Your task to perform on an android device: set the stopwatch Image 0: 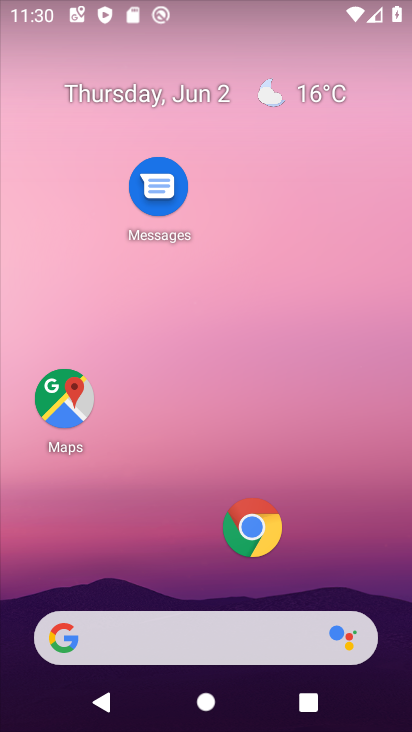
Step 0: press home button
Your task to perform on an android device: set the stopwatch Image 1: 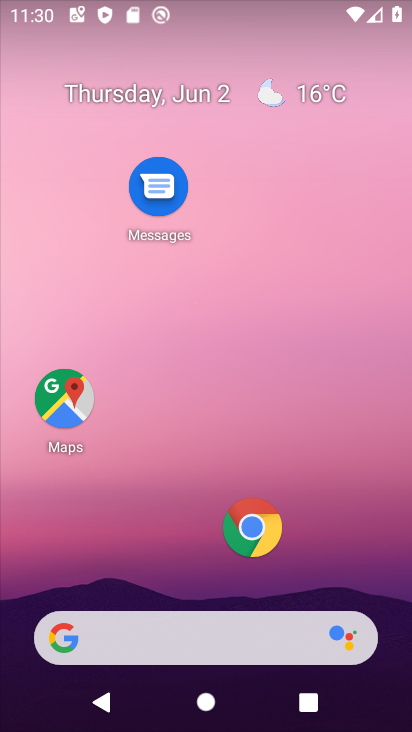
Step 1: drag from (203, 591) to (222, 51)
Your task to perform on an android device: set the stopwatch Image 2: 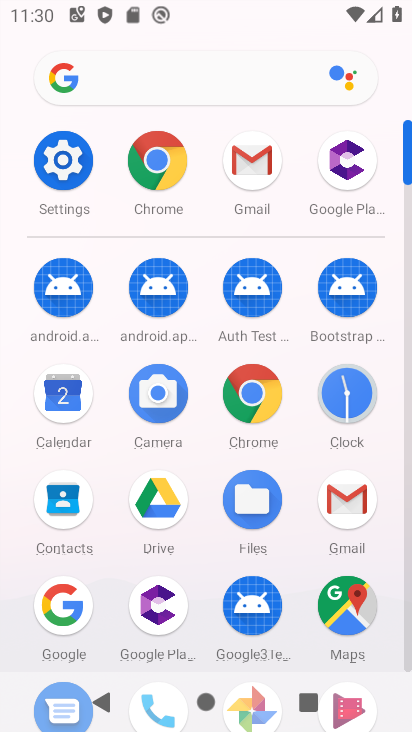
Step 2: click (341, 385)
Your task to perform on an android device: set the stopwatch Image 3: 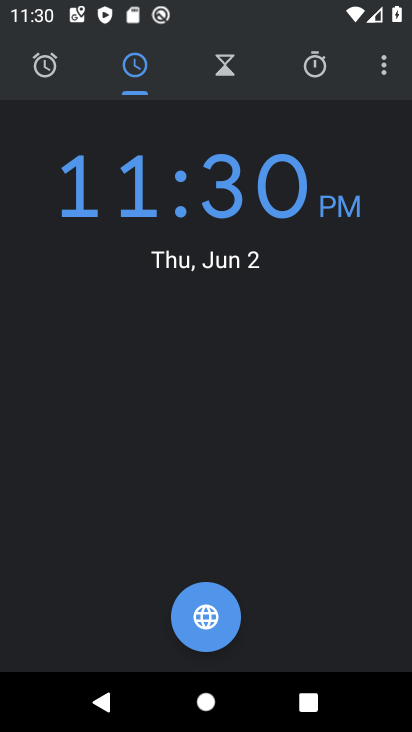
Step 3: click (314, 55)
Your task to perform on an android device: set the stopwatch Image 4: 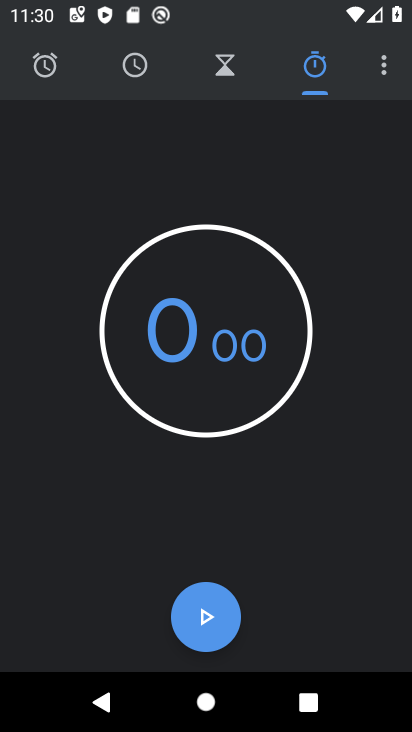
Step 4: click (202, 613)
Your task to perform on an android device: set the stopwatch Image 5: 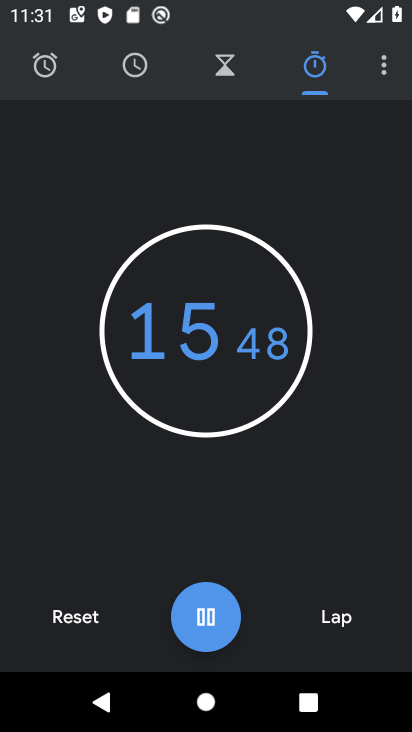
Step 5: task complete